Your task to perform on an android device: turn notification dots off Image 0: 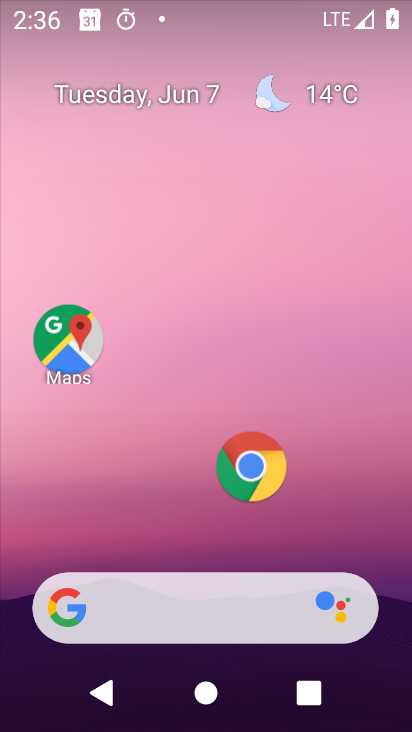
Step 0: drag from (199, 579) to (198, 122)
Your task to perform on an android device: turn notification dots off Image 1: 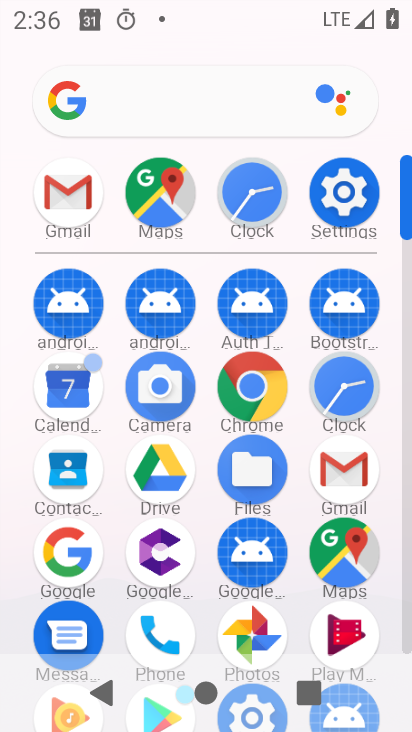
Step 1: click (344, 215)
Your task to perform on an android device: turn notification dots off Image 2: 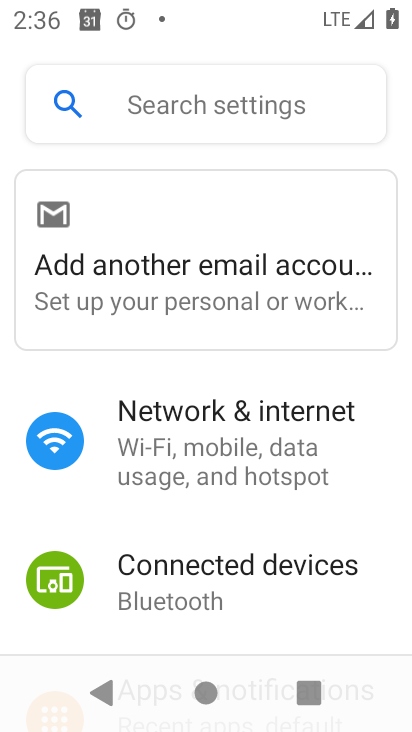
Step 2: drag from (281, 619) to (269, 311)
Your task to perform on an android device: turn notification dots off Image 3: 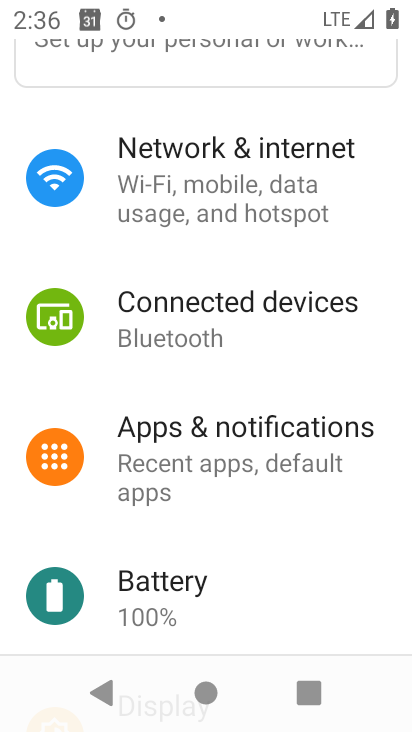
Step 3: click (249, 434)
Your task to perform on an android device: turn notification dots off Image 4: 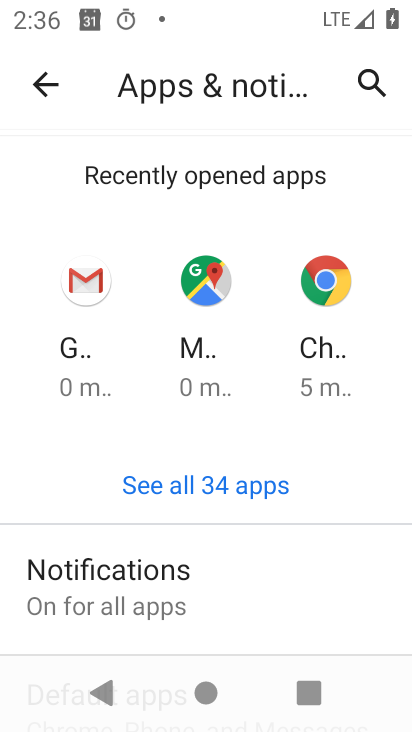
Step 4: click (181, 611)
Your task to perform on an android device: turn notification dots off Image 5: 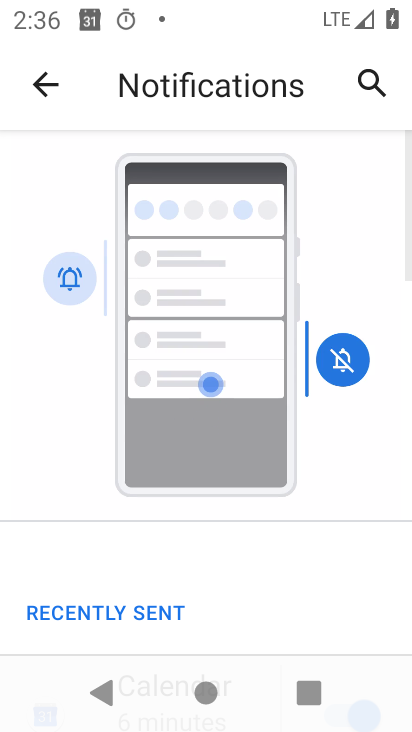
Step 5: drag from (233, 612) to (266, 282)
Your task to perform on an android device: turn notification dots off Image 6: 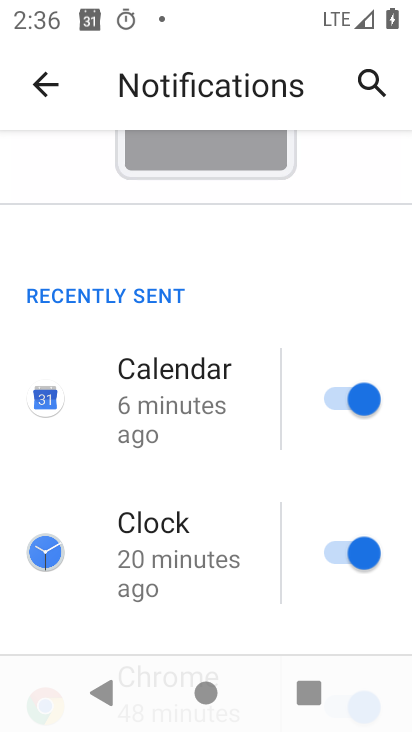
Step 6: drag from (251, 596) to (295, 283)
Your task to perform on an android device: turn notification dots off Image 7: 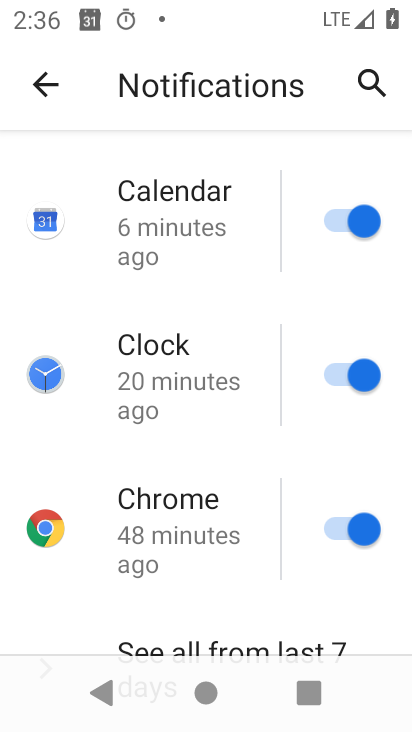
Step 7: drag from (246, 532) to (243, 275)
Your task to perform on an android device: turn notification dots off Image 8: 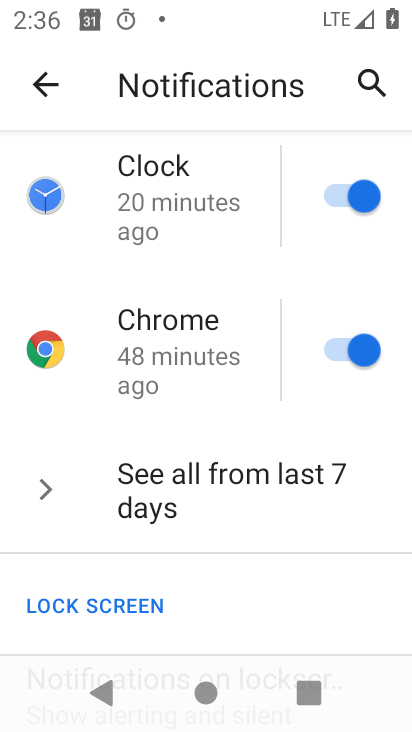
Step 8: drag from (226, 591) to (233, 318)
Your task to perform on an android device: turn notification dots off Image 9: 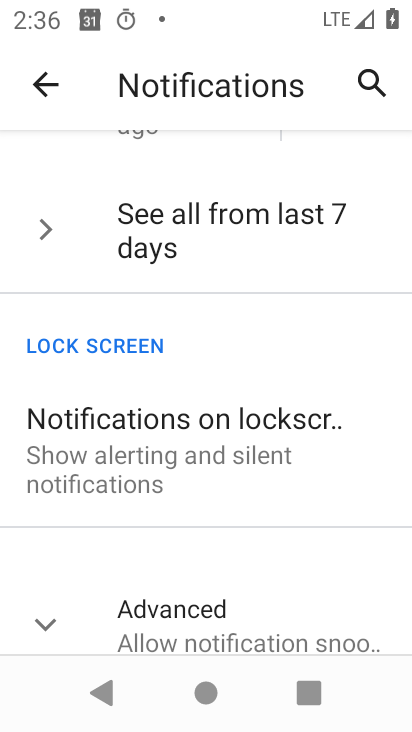
Step 9: click (223, 637)
Your task to perform on an android device: turn notification dots off Image 10: 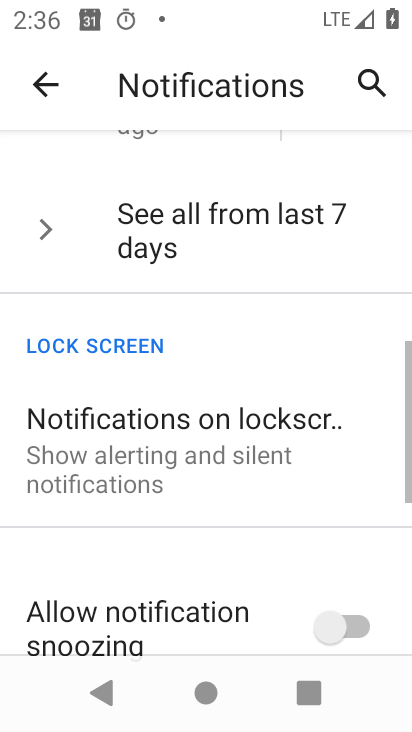
Step 10: drag from (313, 538) to (335, 250)
Your task to perform on an android device: turn notification dots off Image 11: 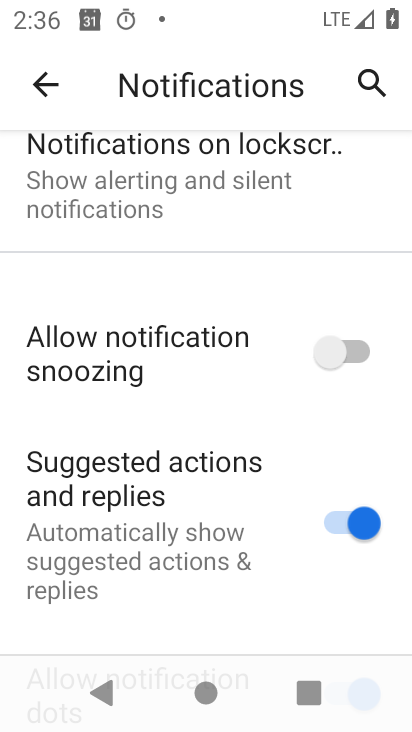
Step 11: drag from (280, 560) to (301, 275)
Your task to perform on an android device: turn notification dots off Image 12: 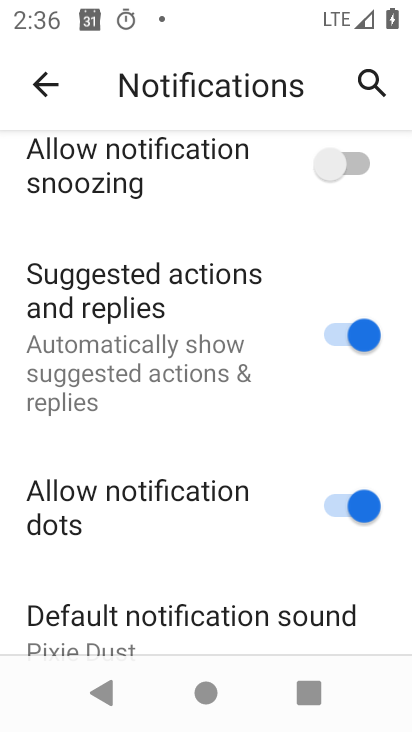
Step 12: drag from (282, 529) to (317, 316)
Your task to perform on an android device: turn notification dots off Image 13: 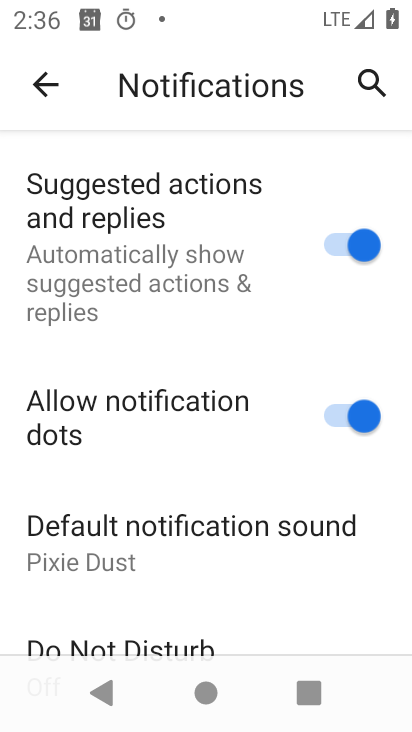
Step 13: click (365, 425)
Your task to perform on an android device: turn notification dots off Image 14: 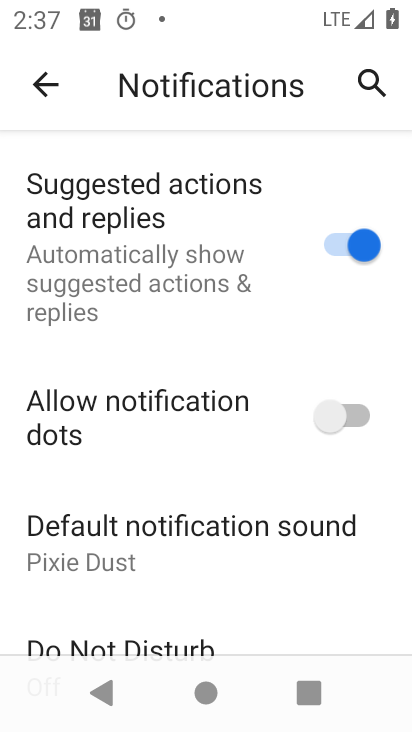
Step 14: task complete